Your task to perform on an android device: add a label to a message in the gmail app Image 0: 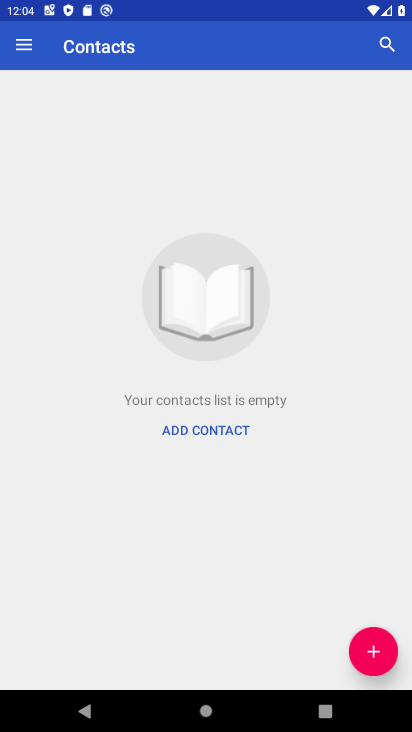
Step 0: press home button
Your task to perform on an android device: add a label to a message in the gmail app Image 1: 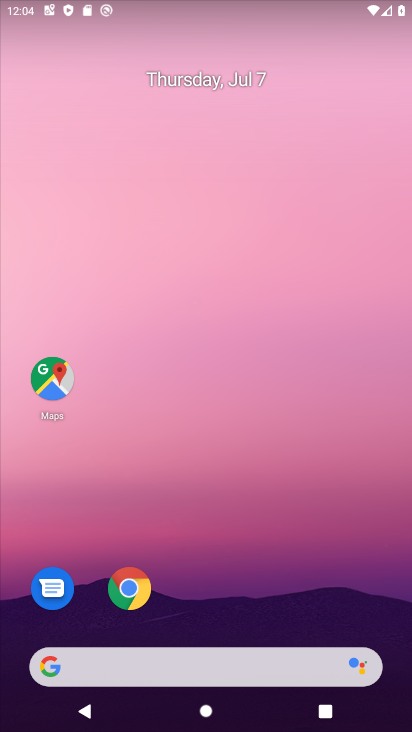
Step 1: drag from (246, 726) to (240, 175)
Your task to perform on an android device: add a label to a message in the gmail app Image 2: 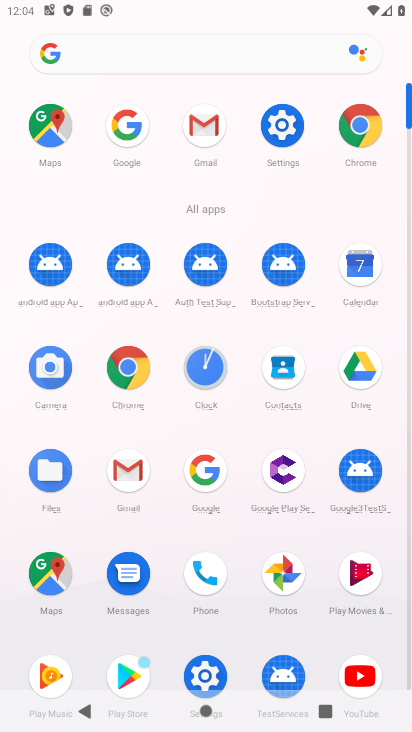
Step 2: click (128, 467)
Your task to perform on an android device: add a label to a message in the gmail app Image 3: 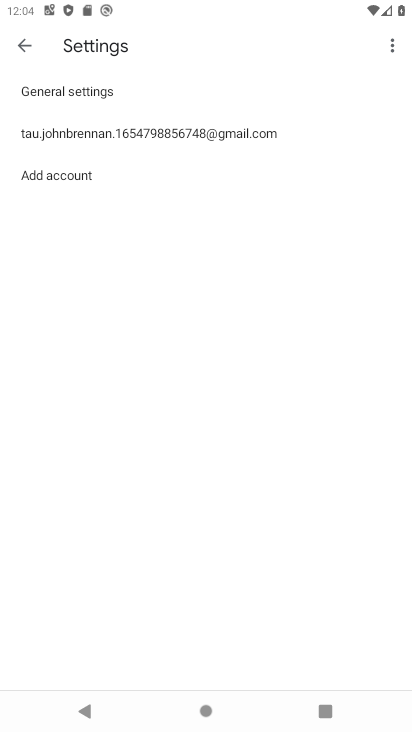
Step 3: click (24, 44)
Your task to perform on an android device: add a label to a message in the gmail app Image 4: 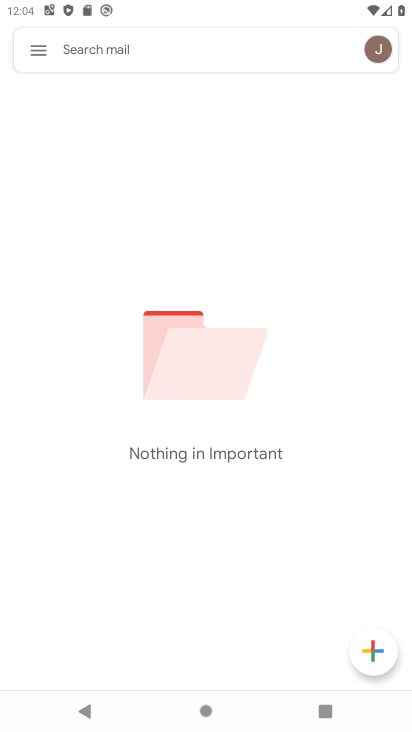
Step 4: click (47, 51)
Your task to perform on an android device: add a label to a message in the gmail app Image 5: 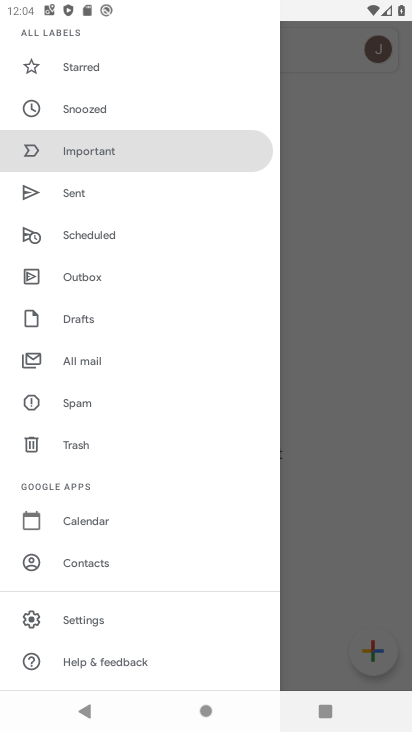
Step 5: drag from (205, 83) to (176, 540)
Your task to perform on an android device: add a label to a message in the gmail app Image 6: 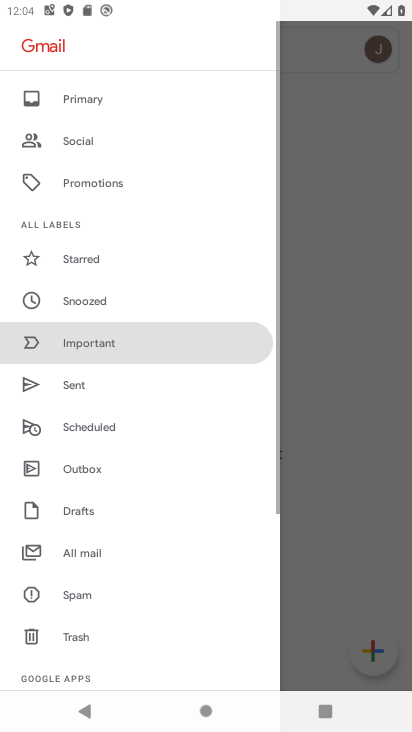
Step 6: click (86, 98)
Your task to perform on an android device: add a label to a message in the gmail app Image 7: 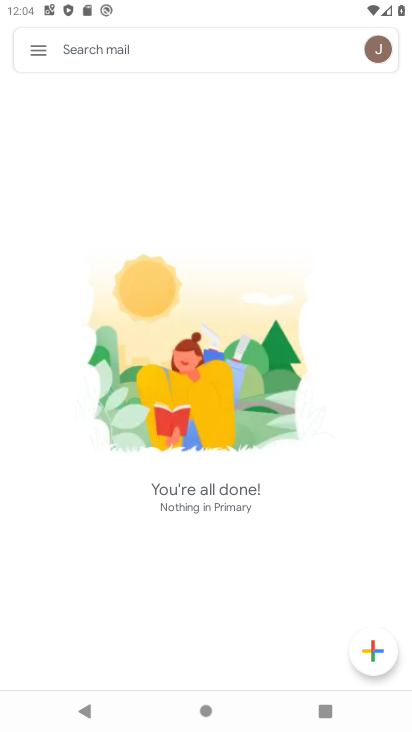
Step 7: task complete